Your task to perform on an android device: allow cookies in the chrome app Image 0: 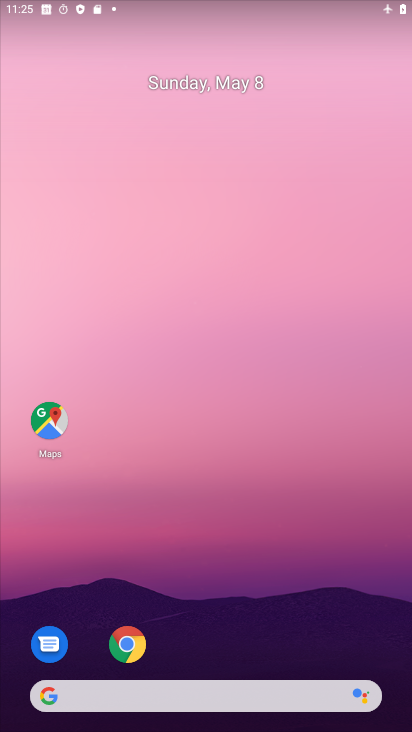
Step 0: drag from (188, 637) to (240, 230)
Your task to perform on an android device: allow cookies in the chrome app Image 1: 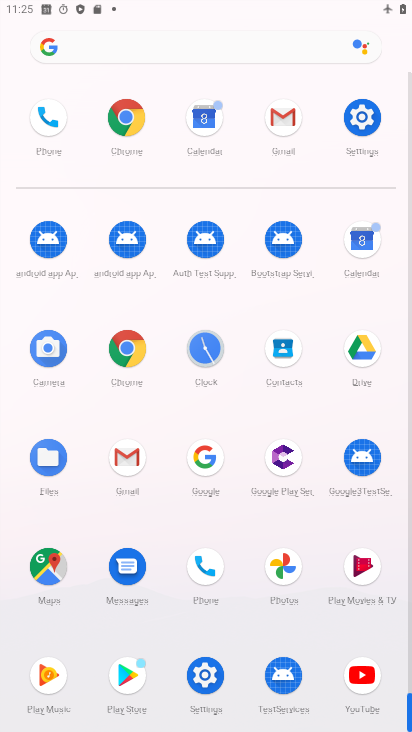
Step 1: click (125, 352)
Your task to perform on an android device: allow cookies in the chrome app Image 2: 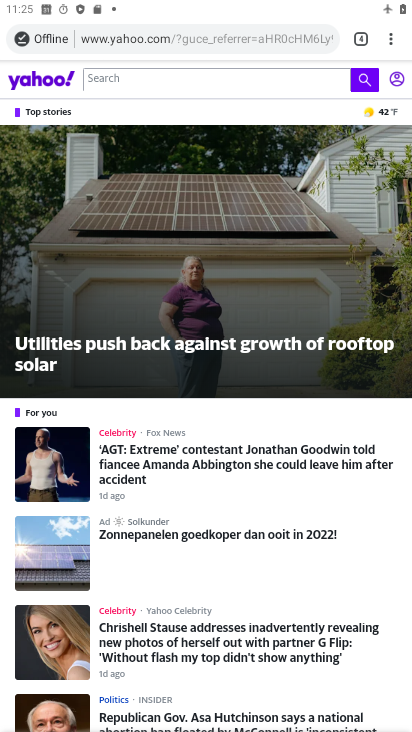
Step 2: drag from (398, 35) to (263, 478)
Your task to perform on an android device: allow cookies in the chrome app Image 3: 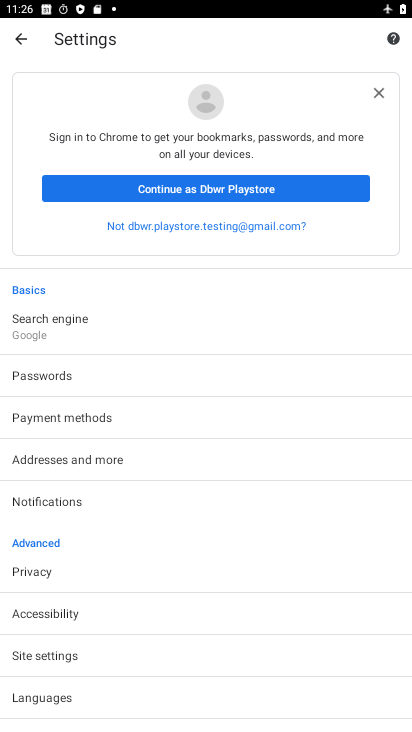
Step 3: drag from (135, 538) to (280, 146)
Your task to perform on an android device: allow cookies in the chrome app Image 4: 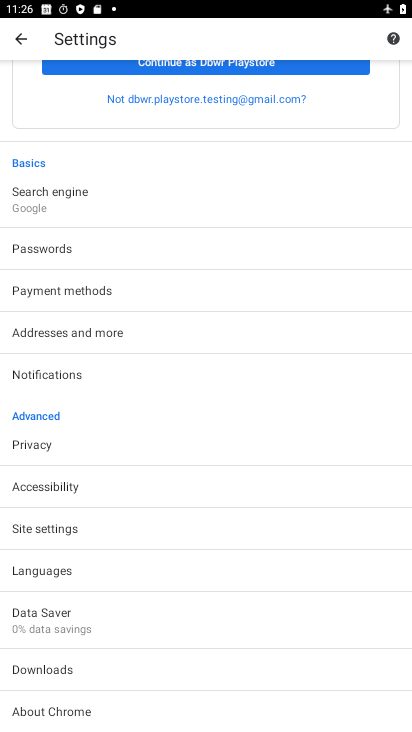
Step 4: drag from (191, 616) to (280, 291)
Your task to perform on an android device: allow cookies in the chrome app Image 5: 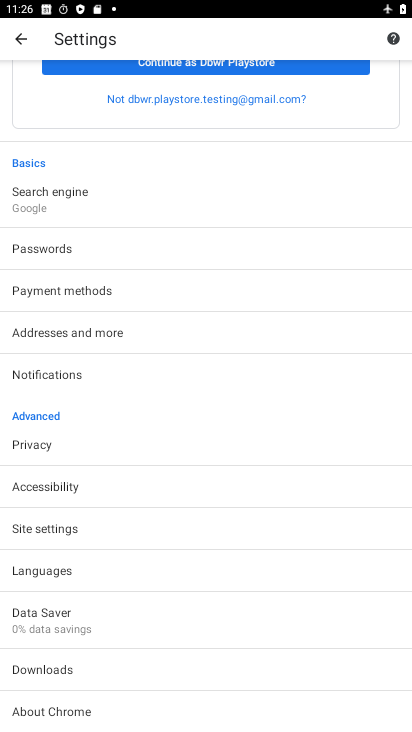
Step 5: click (68, 534)
Your task to perform on an android device: allow cookies in the chrome app Image 6: 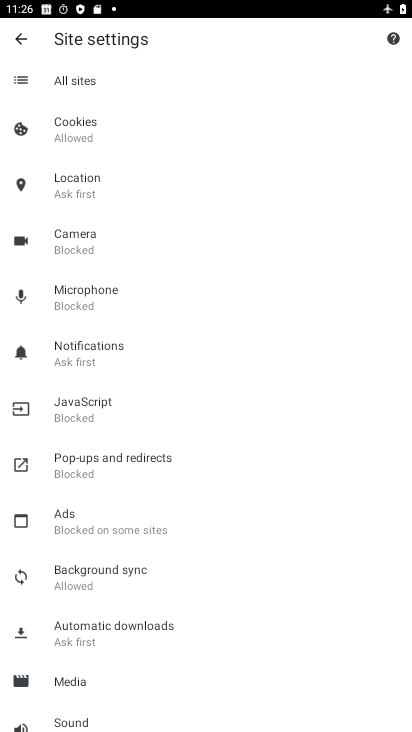
Step 6: drag from (160, 697) to (284, 153)
Your task to perform on an android device: allow cookies in the chrome app Image 7: 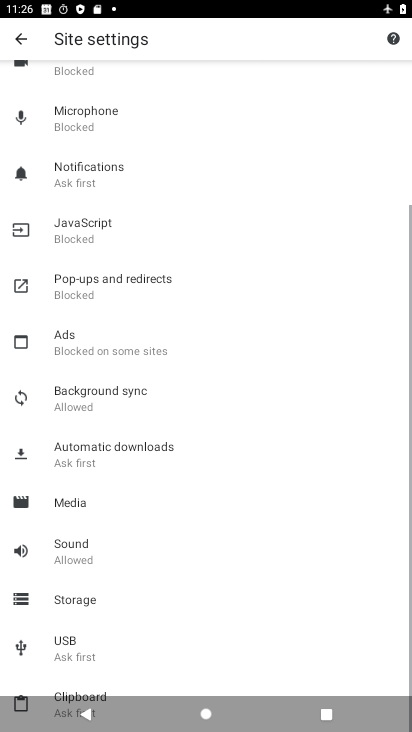
Step 7: drag from (152, 115) to (165, 726)
Your task to perform on an android device: allow cookies in the chrome app Image 8: 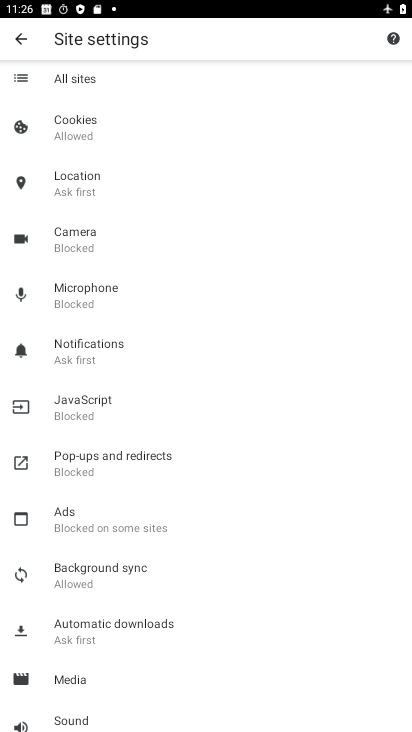
Step 8: click (133, 121)
Your task to perform on an android device: allow cookies in the chrome app Image 9: 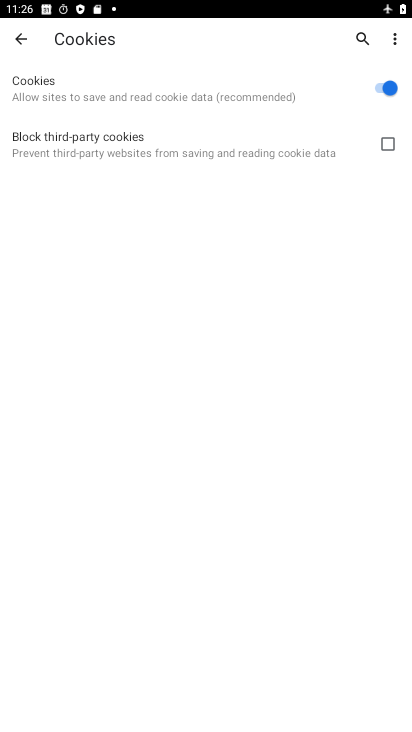
Step 9: task complete